Your task to perform on an android device: turn off translation in the chrome app Image 0: 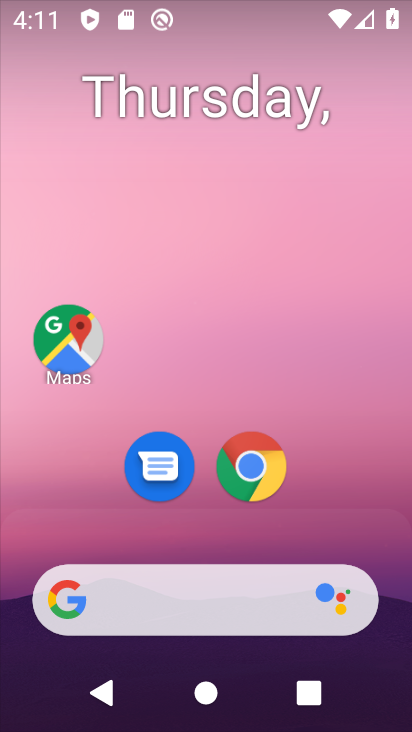
Step 0: click (250, 457)
Your task to perform on an android device: turn off translation in the chrome app Image 1: 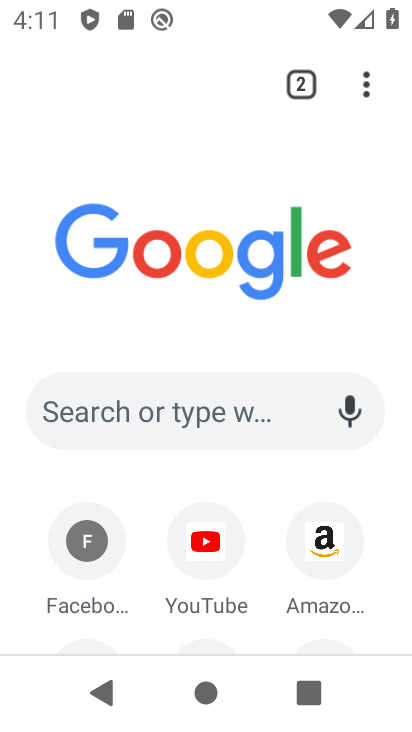
Step 1: click (361, 81)
Your task to perform on an android device: turn off translation in the chrome app Image 2: 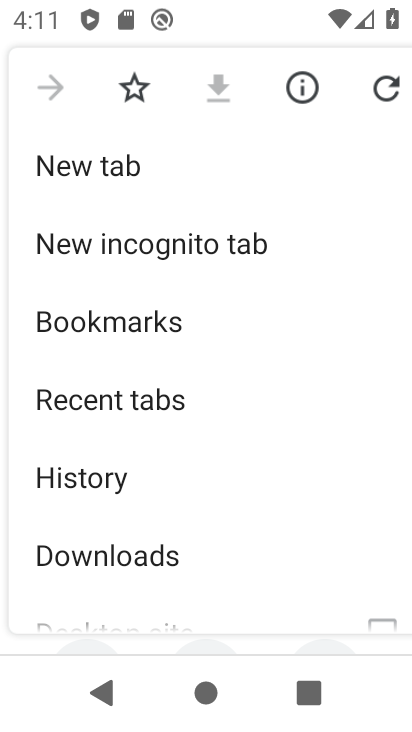
Step 2: drag from (201, 565) to (215, 72)
Your task to perform on an android device: turn off translation in the chrome app Image 3: 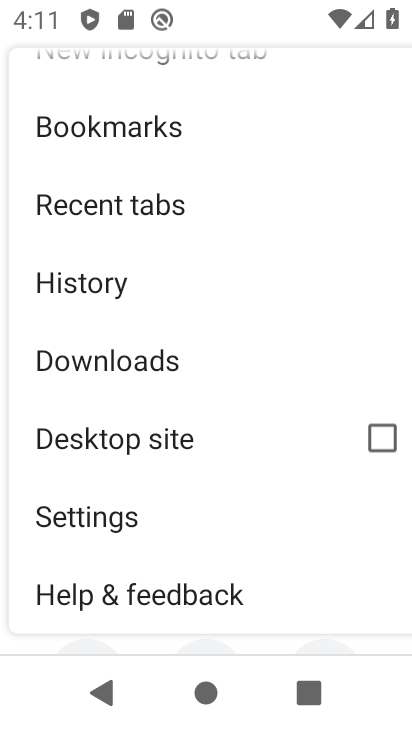
Step 3: drag from (183, 190) to (183, 156)
Your task to perform on an android device: turn off translation in the chrome app Image 4: 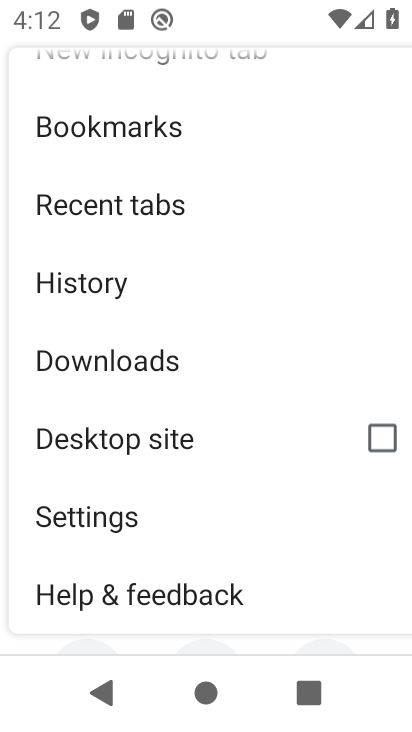
Step 4: click (145, 514)
Your task to perform on an android device: turn off translation in the chrome app Image 5: 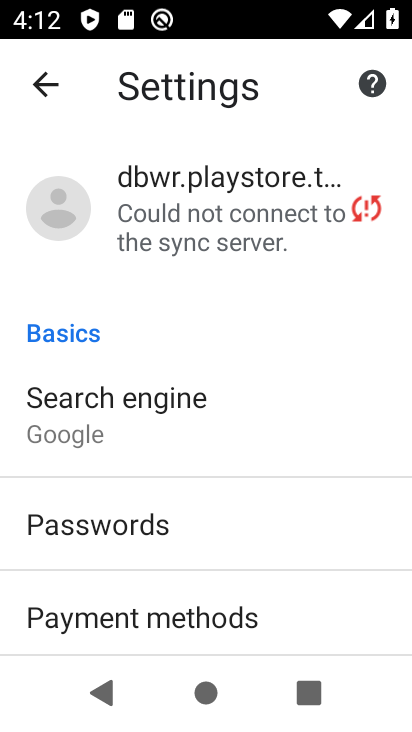
Step 5: drag from (265, 611) to (262, 98)
Your task to perform on an android device: turn off translation in the chrome app Image 6: 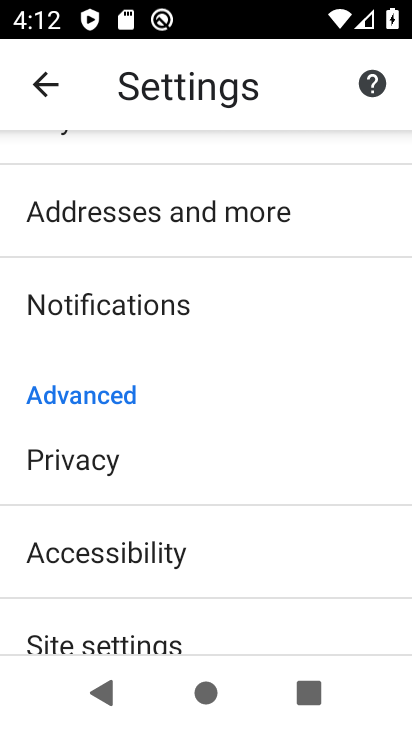
Step 6: drag from (221, 634) to (218, 211)
Your task to perform on an android device: turn off translation in the chrome app Image 7: 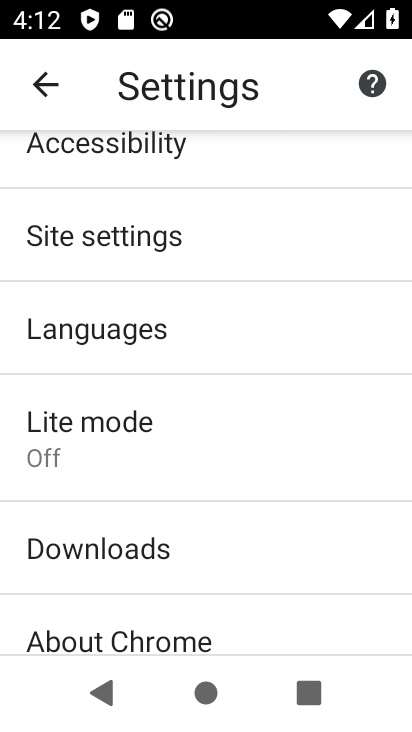
Step 7: click (186, 325)
Your task to perform on an android device: turn off translation in the chrome app Image 8: 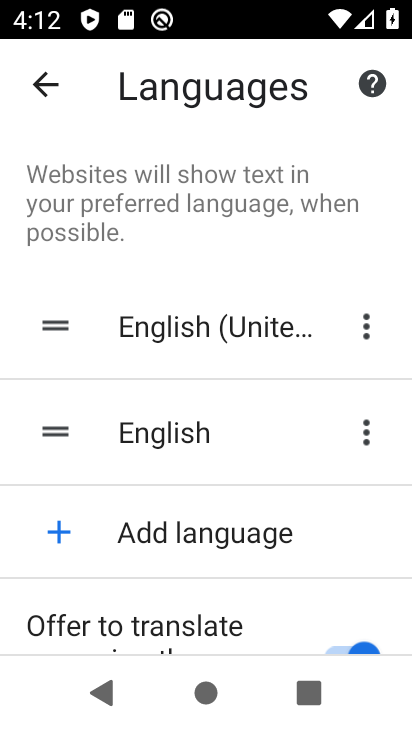
Step 8: drag from (254, 609) to (228, 233)
Your task to perform on an android device: turn off translation in the chrome app Image 9: 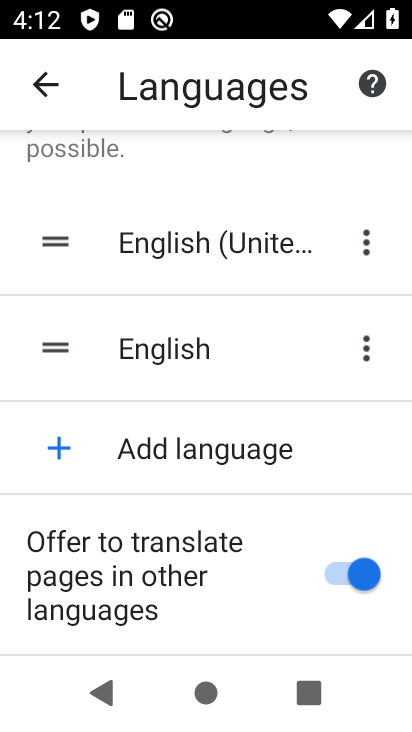
Step 9: click (343, 568)
Your task to perform on an android device: turn off translation in the chrome app Image 10: 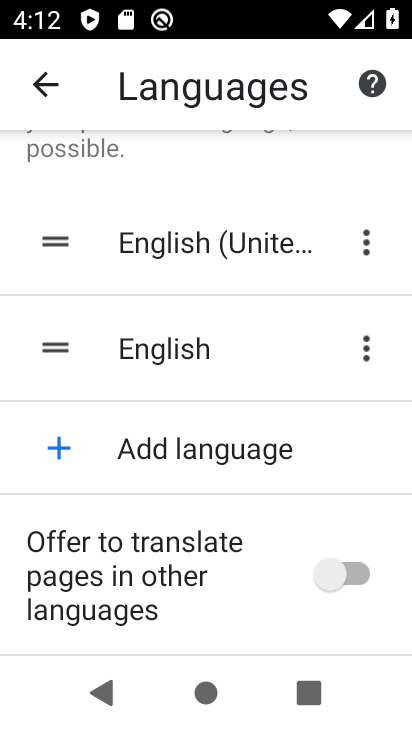
Step 10: task complete